Your task to perform on an android device: see sites visited before in the chrome app Image 0: 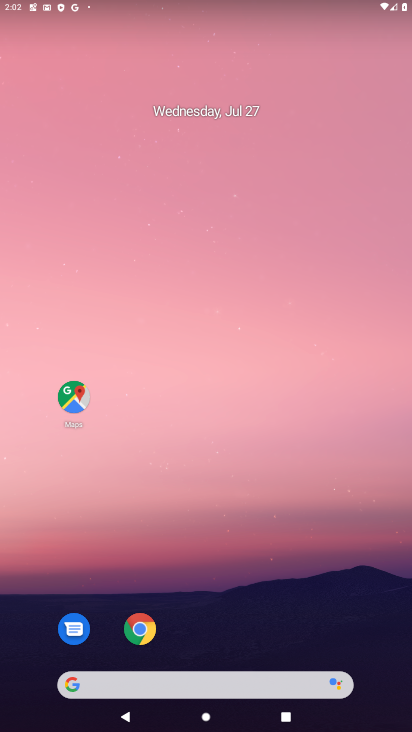
Step 0: task complete